Your task to perform on an android device: Open privacy settings Image 0: 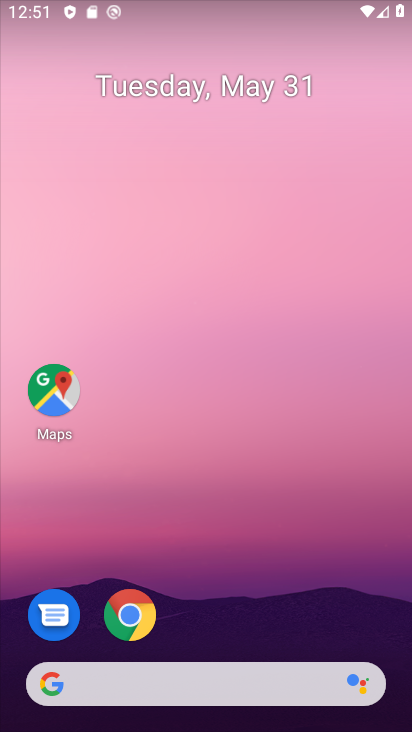
Step 0: drag from (265, 574) to (262, 141)
Your task to perform on an android device: Open privacy settings Image 1: 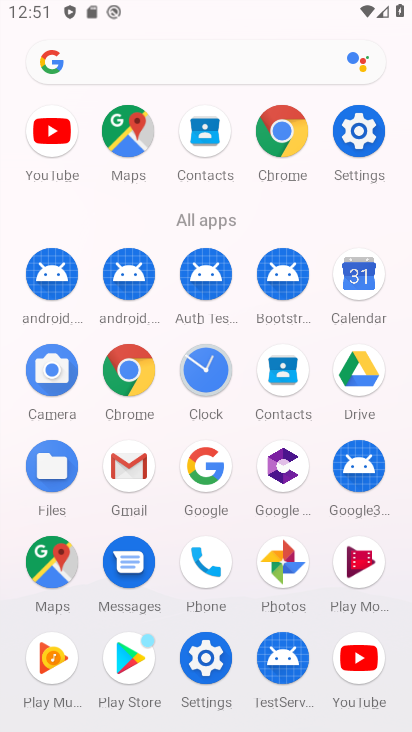
Step 1: click (346, 135)
Your task to perform on an android device: Open privacy settings Image 2: 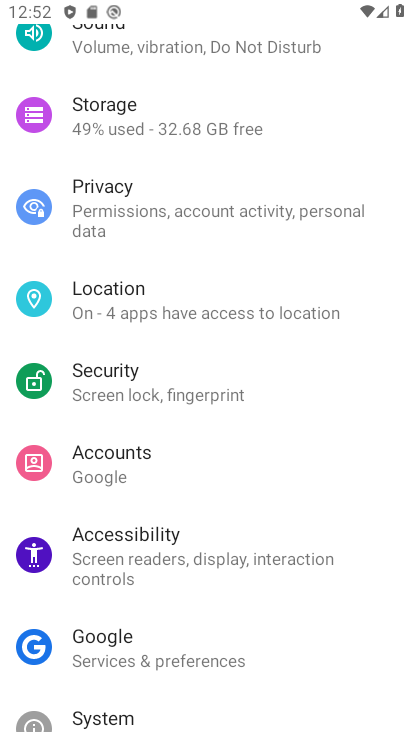
Step 2: drag from (251, 599) to (231, 279)
Your task to perform on an android device: Open privacy settings Image 3: 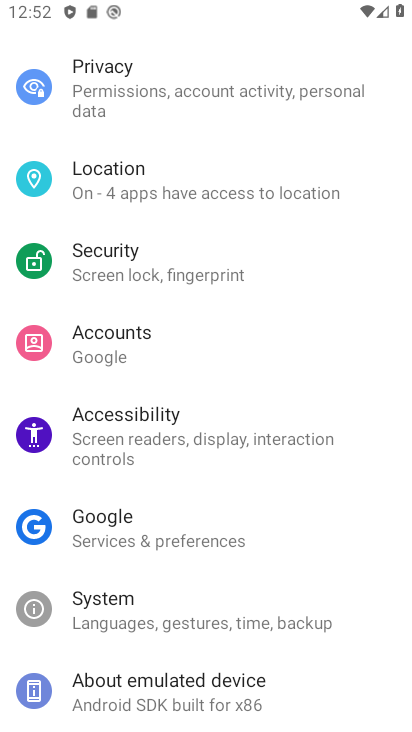
Step 3: drag from (161, 246) to (191, 677)
Your task to perform on an android device: Open privacy settings Image 4: 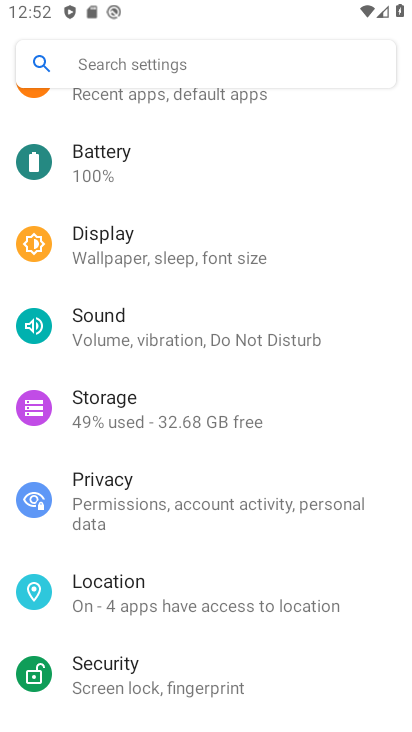
Step 4: drag from (182, 245) to (189, 556)
Your task to perform on an android device: Open privacy settings Image 5: 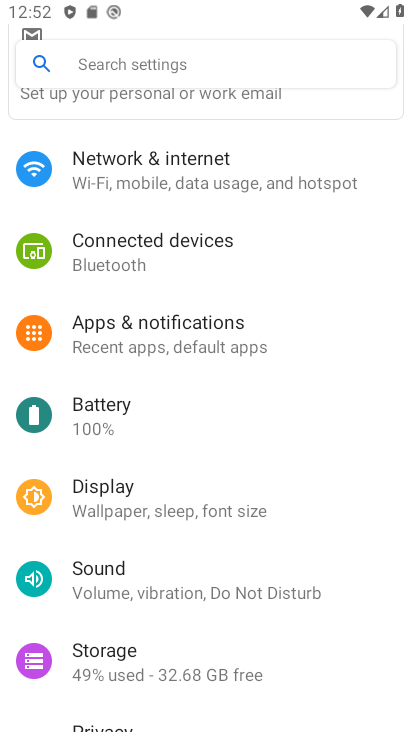
Step 5: drag from (197, 281) to (205, 562)
Your task to perform on an android device: Open privacy settings Image 6: 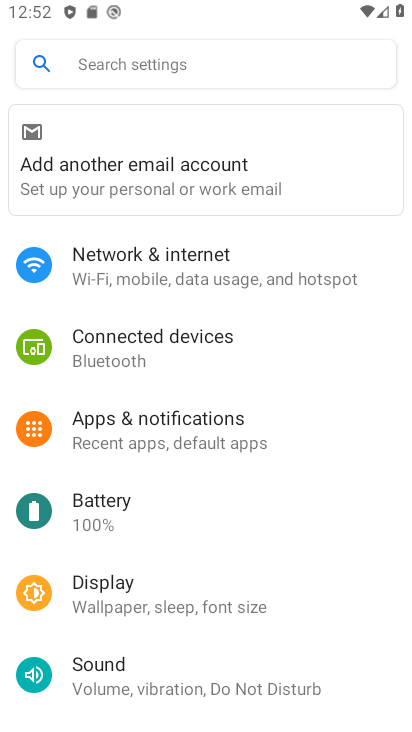
Step 6: drag from (202, 625) to (206, 299)
Your task to perform on an android device: Open privacy settings Image 7: 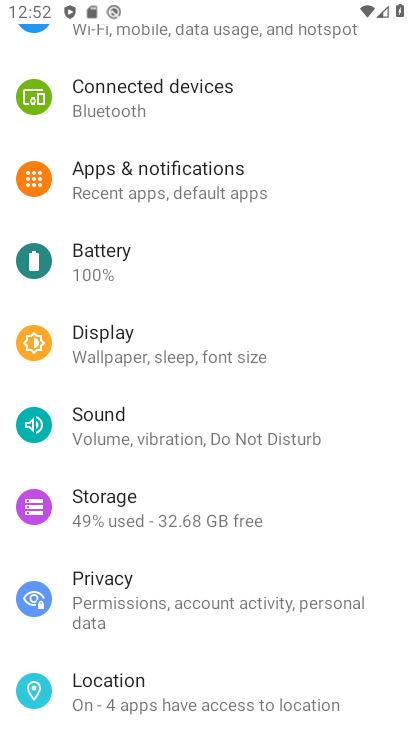
Step 7: click (187, 579)
Your task to perform on an android device: Open privacy settings Image 8: 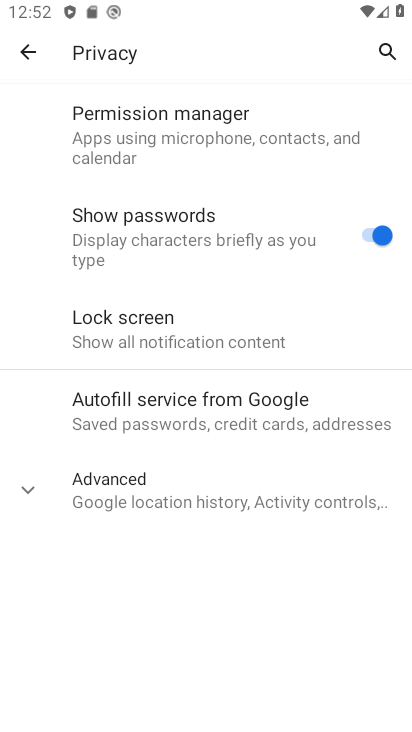
Step 8: task complete